Your task to perform on an android device: turn vacation reply on in the gmail app Image 0: 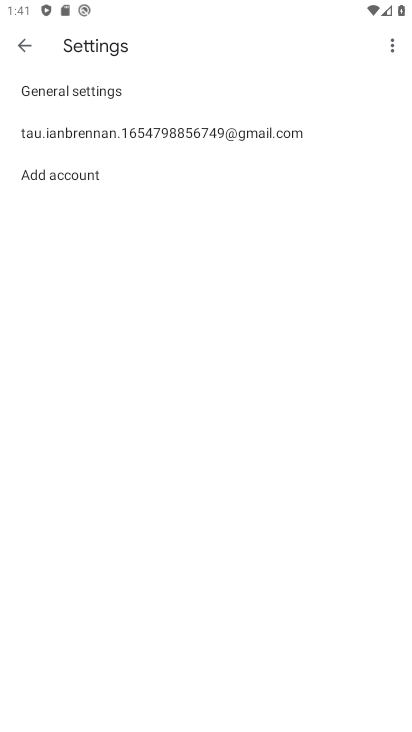
Step 0: press home button
Your task to perform on an android device: turn vacation reply on in the gmail app Image 1: 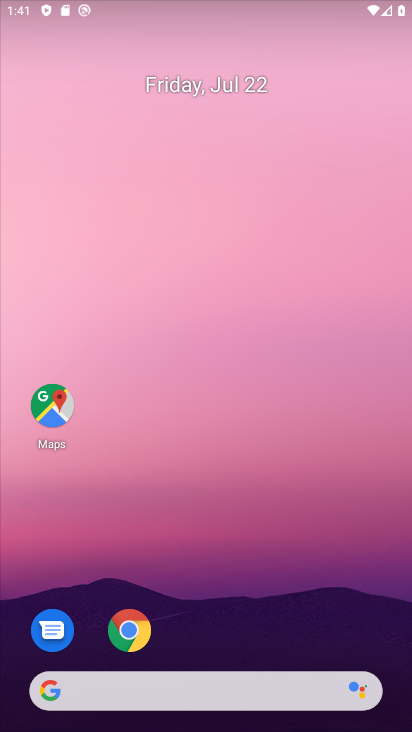
Step 1: drag from (213, 650) to (235, 84)
Your task to perform on an android device: turn vacation reply on in the gmail app Image 2: 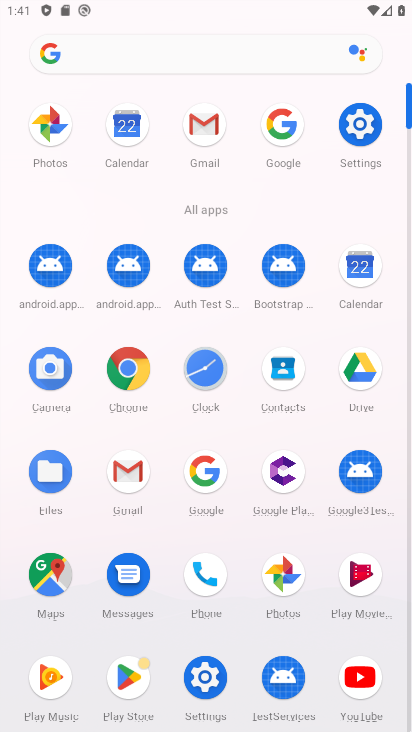
Step 2: click (207, 123)
Your task to perform on an android device: turn vacation reply on in the gmail app Image 3: 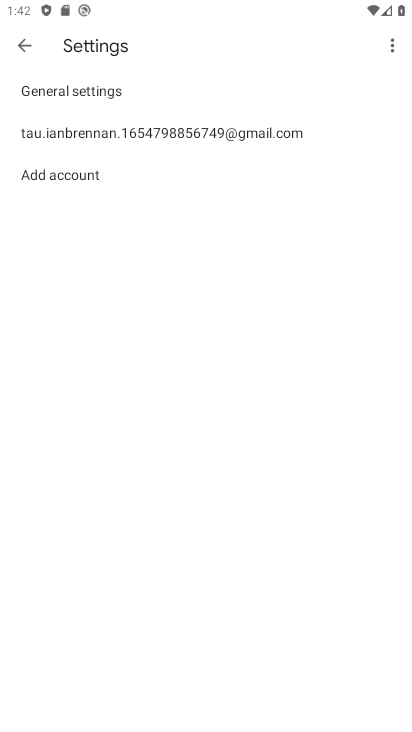
Step 3: click (110, 136)
Your task to perform on an android device: turn vacation reply on in the gmail app Image 4: 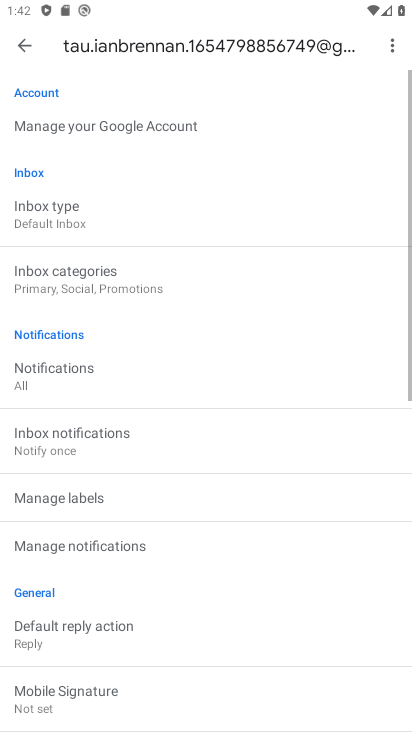
Step 4: drag from (148, 640) to (147, 205)
Your task to perform on an android device: turn vacation reply on in the gmail app Image 5: 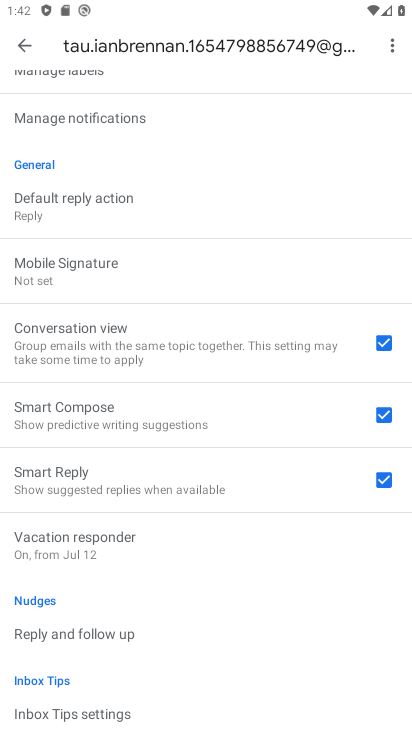
Step 5: click (54, 554)
Your task to perform on an android device: turn vacation reply on in the gmail app Image 6: 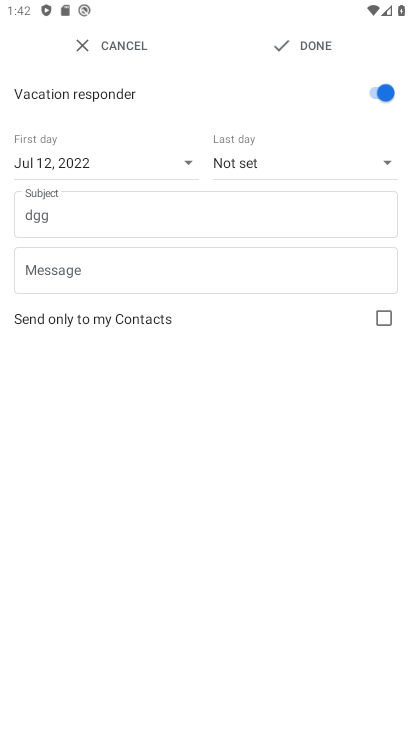
Step 6: task complete